Your task to perform on an android device: Go to network settings Image 0: 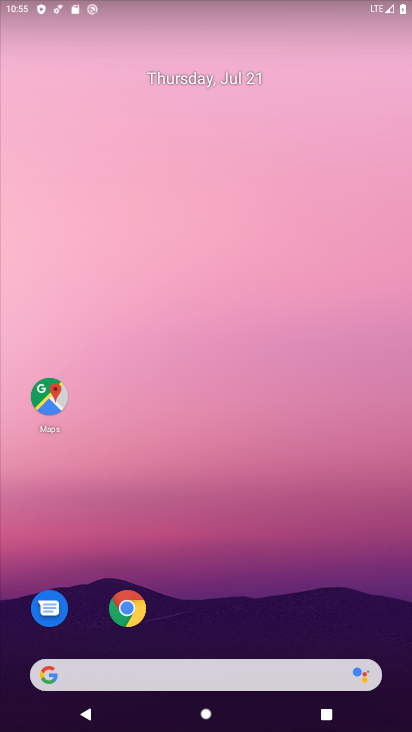
Step 0: click (288, 234)
Your task to perform on an android device: Go to network settings Image 1: 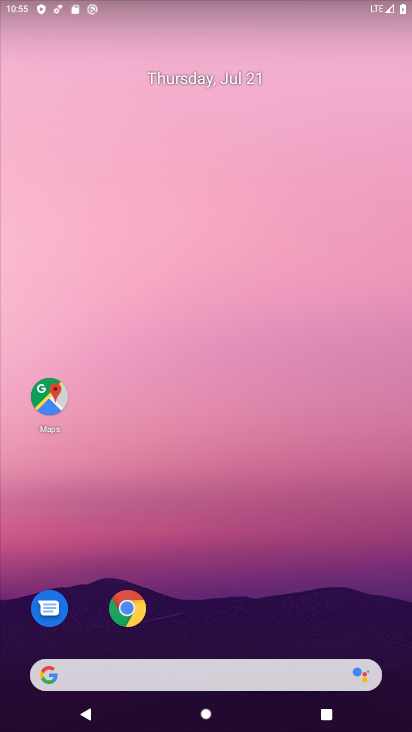
Step 1: drag from (192, 634) to (307, 23)
Your task to perform on an android device: Go to network settings Image 2: 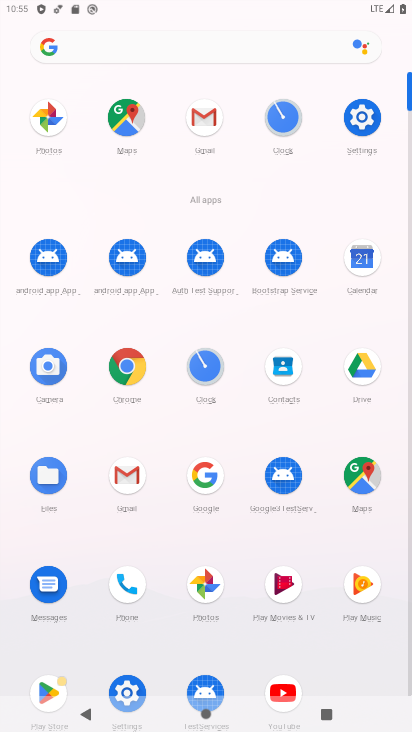
Step 2: click (370, 125)
Your task to perform on an android device: Go to network settings Image 3: 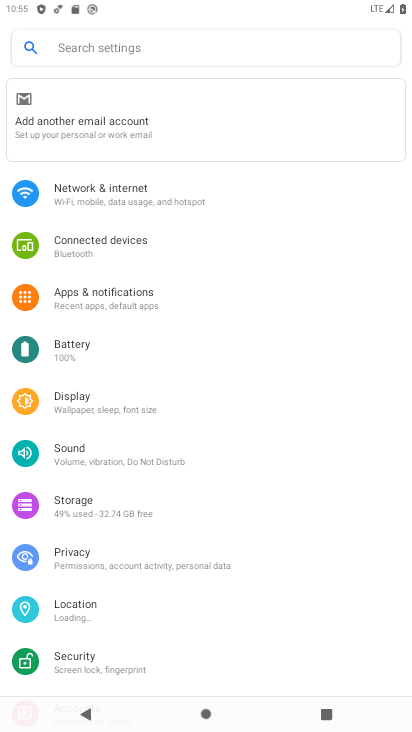
Step 3: click (83, 186)
Your task to perform on an android device: Go to network settings Image 4: 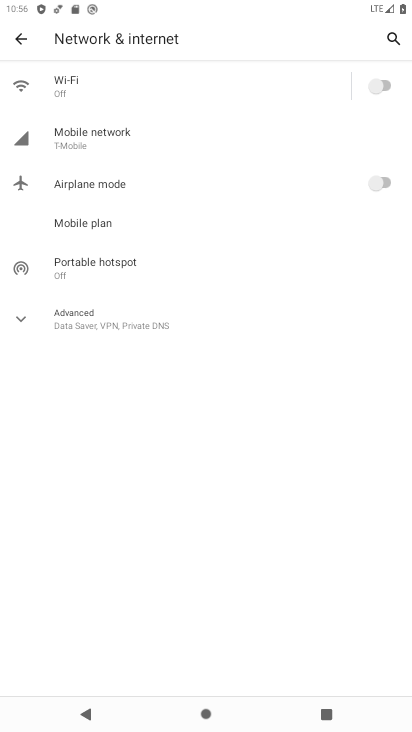
Step 4: task complete